Your task to perform on an android device: Open the calendar app, open the side menu, and click the "Day" option Image 0: 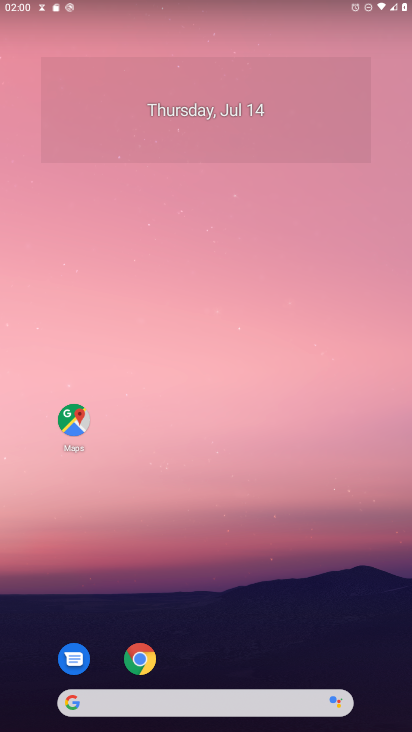
Step 0: drag from (35, 664) to (224, 237)
Your task to perform on an android device: Open the calendar app, open the side menu, and click the "Day" option Image 1: 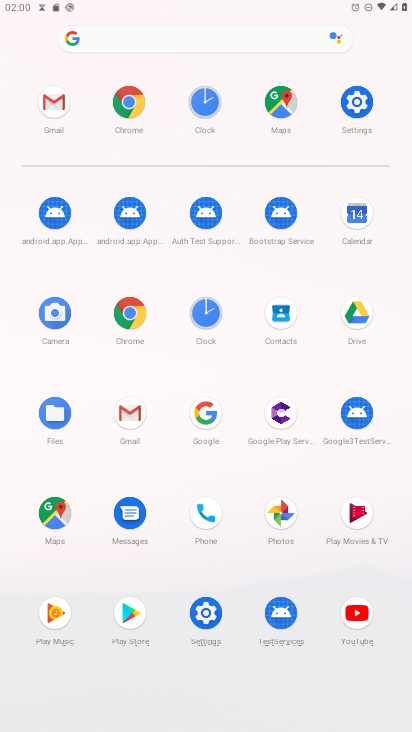
Step 1: click (362, 224)
Your task to perform on an android device: Open the calendar app, open the side menu, and click the "Day" option Image 2: 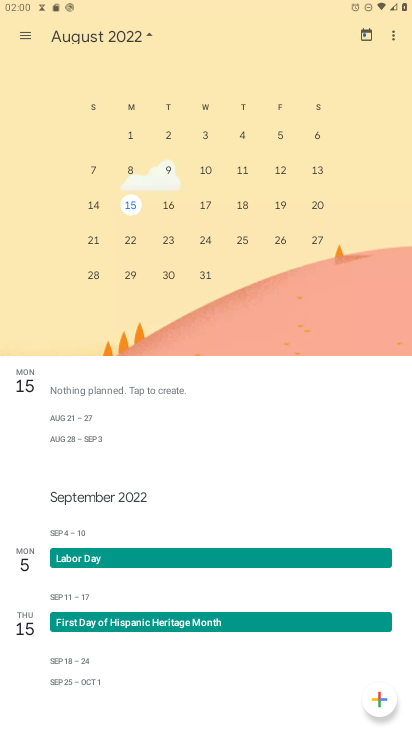
Step 2: click (33, 32)
Your task to perform on an android device: Open the calendar app, open the side menu, and click the "Day" option Image 3: 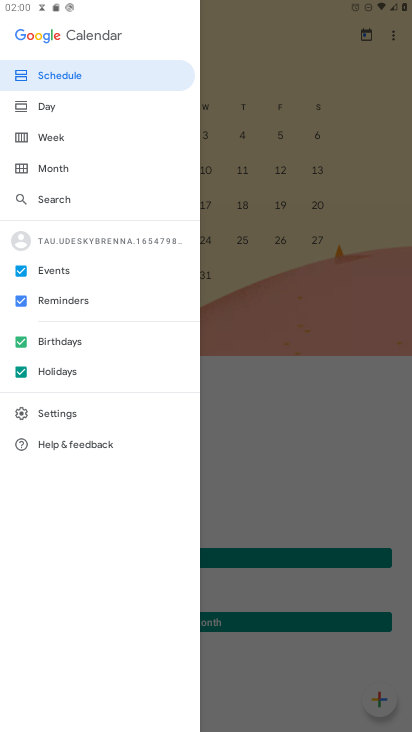
Step 3: click (68, 108)
Your task to perform on an android device: Open the calendar app, open the side menu, and click the "Day" option Image 4: 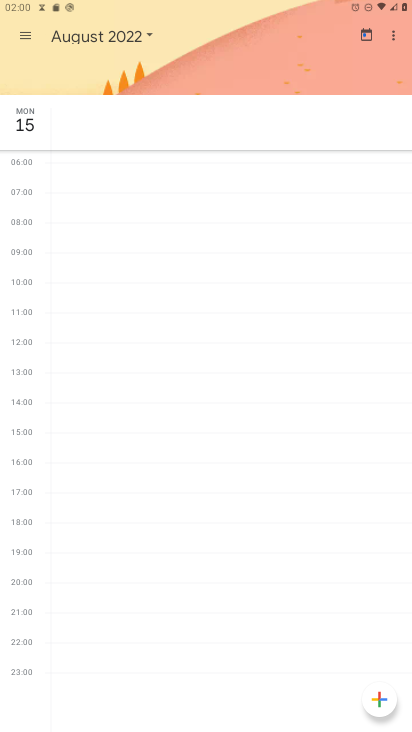
Step 4: click (135, 41)
Your task to perform on an android device: Open the calendar app, open the side menu, and click the "Day" option Image 5: 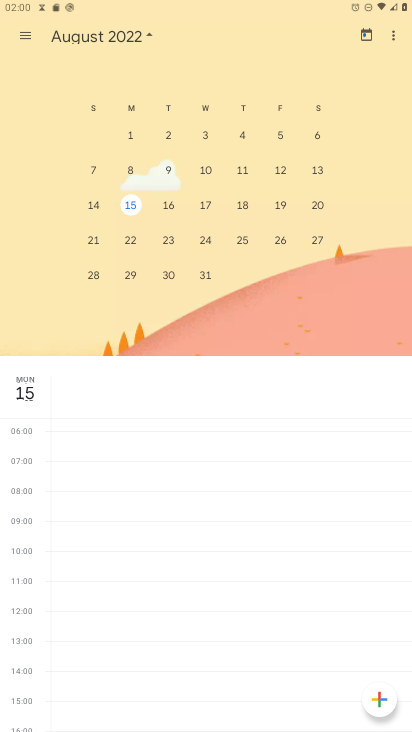
Step 5: task complete